Your task to perform on an android device: clear all cookies in the chrome app Image 0: 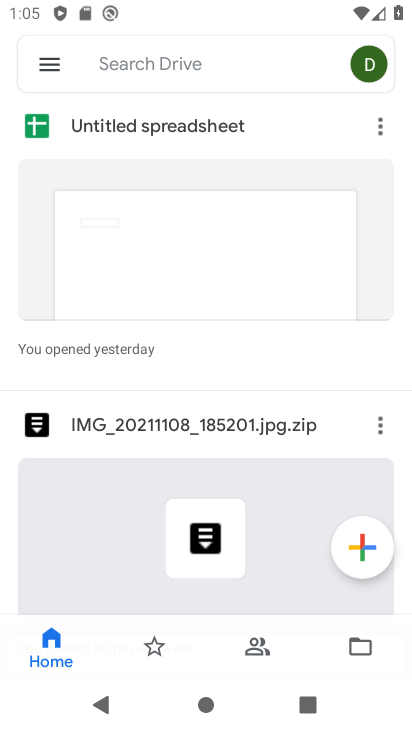
Step 0: press home button
Your task to perform on an android device: clear all cookies in the chrome app Image 1: 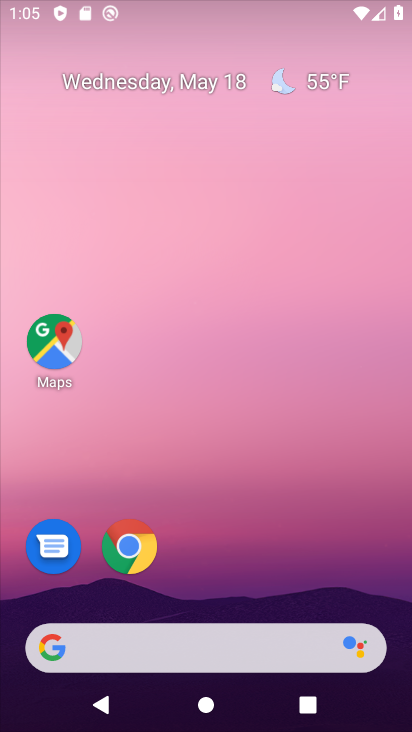
Step 1: drag from (367, 551) to (360, 175)
Your task to perform on an android device: clear all cookies in the chrome app Image 2: 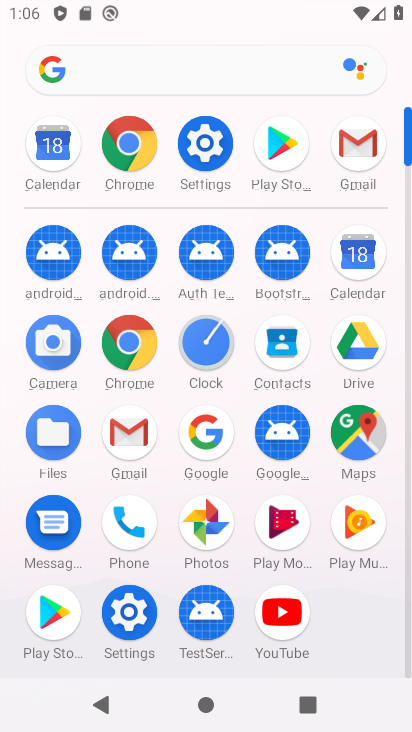
Step 2: click (140, 361)
Your task to perform on an android device: clear all cookies in the chrome app Image 3: 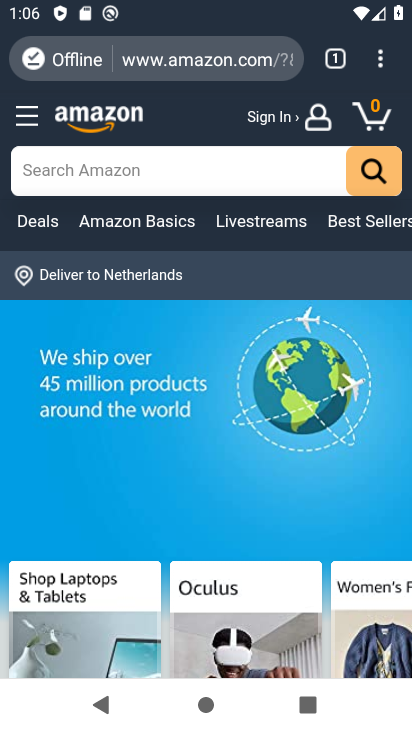
Step 3: drag from (386, 55) to (183, 343)
Your task to perform on an android device: clear all cookies in the chrome app Image 4: 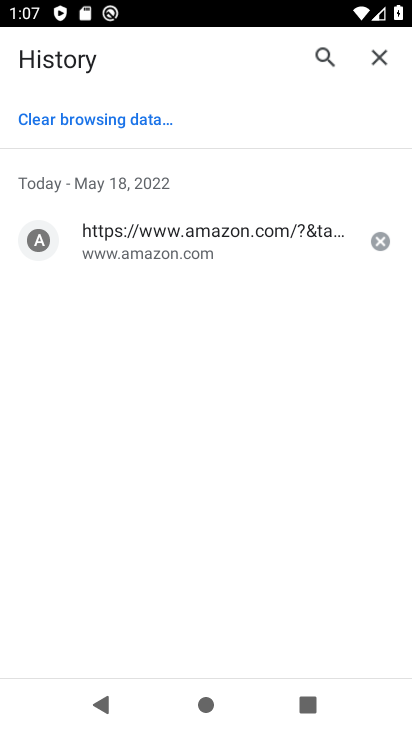
Step 4: click (143, 123)
Your task to perform on an android device: clear all cookies in the chrome app Image 5: 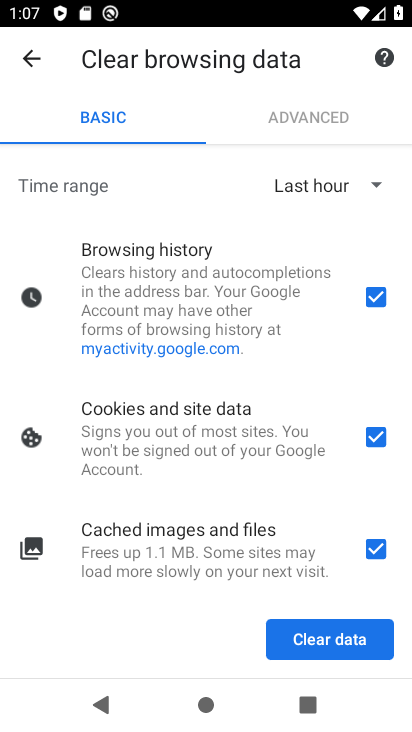
Step 5: click (381, 290)
Your task to perform on an android device: clear all cookies in the chrome app Image 6: 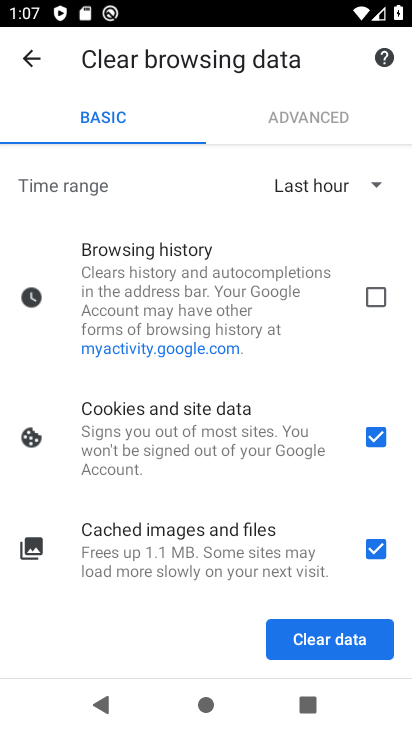
Step 6: click (369, 552)
Your task to perform on an android device: clear all cookies in the chrome app Image 7: 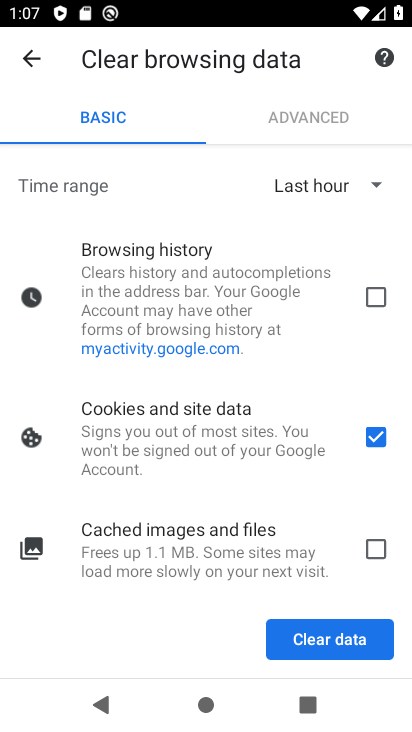
Step 7: click (331, 649)
Your task to perform on an android device: clear all cookies in the chrome app Image 8: 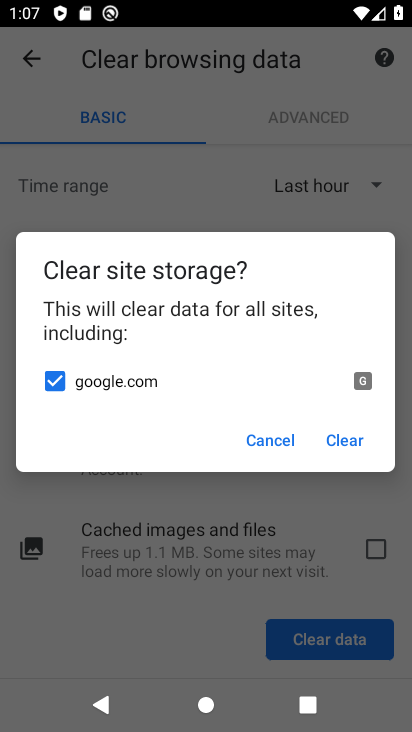
Step 8: task complete